Your task to perform on an android device: turn on the 12-hour format for clock Image 0: 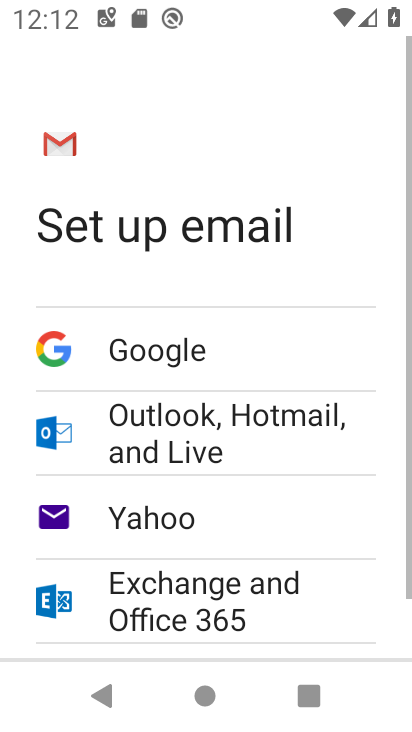
Step 0: press home button
Your task to perform on an android device: turn on the 12-hour format for clock Image 1: 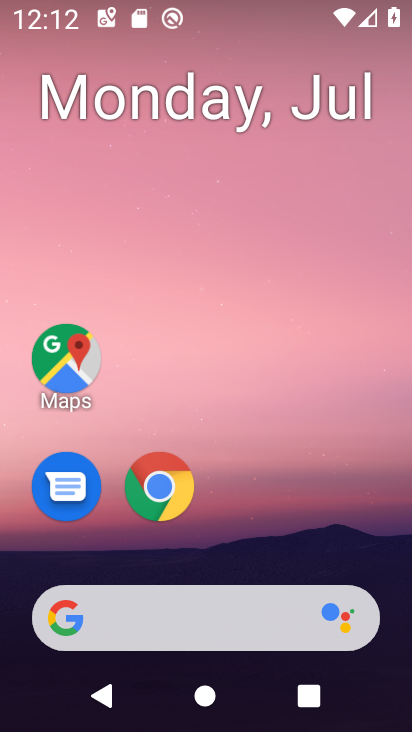
Step 1: drag from (340, 541) to (322, 132)
Your task to perform on an android device: turn on the 12-hour format for clock Image 2: 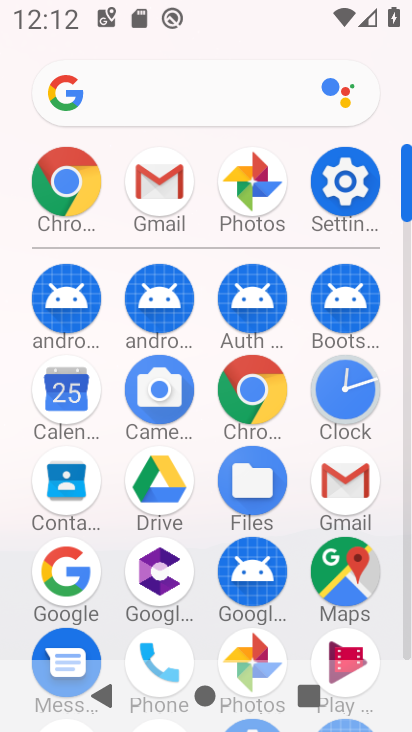
Step 2: click (346, 386)
Your task to perform on an android device: turn on the 12-hour format for clock Image 3: 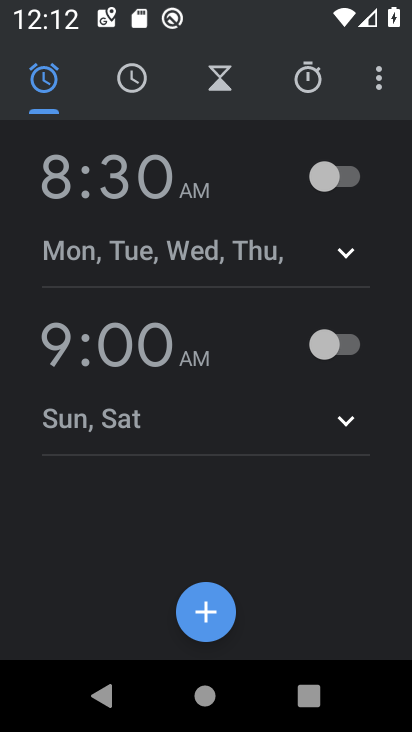
Step 3: click (380, 92)
Your task to perform on an android device: turn on the 12-hour format for clock Image 4: 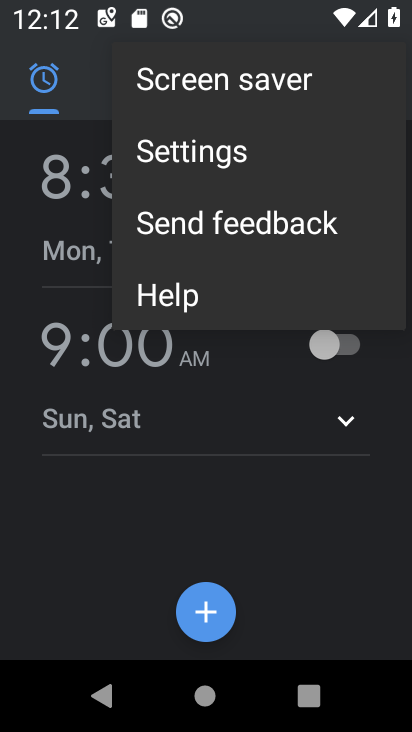
Step 4: click (253, 153)
Your task to perform on an android device: turn on the 12-hour format for clock Image 5: 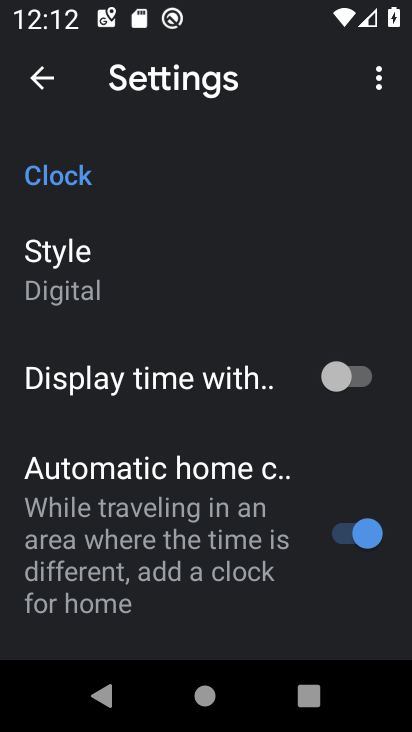
Step 5: drag from (255, 506) to (258, 412)
Your task to perform on an android device: turn on the 12-hour format for clock Image 6: 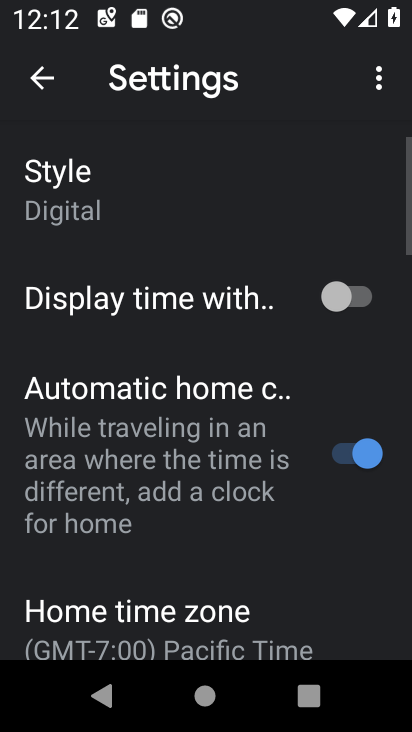
Step 6: drag from (271, 547) to (252, 386)
Your task to perform on an android device: turn on the 12-hour format for clock Image 7: 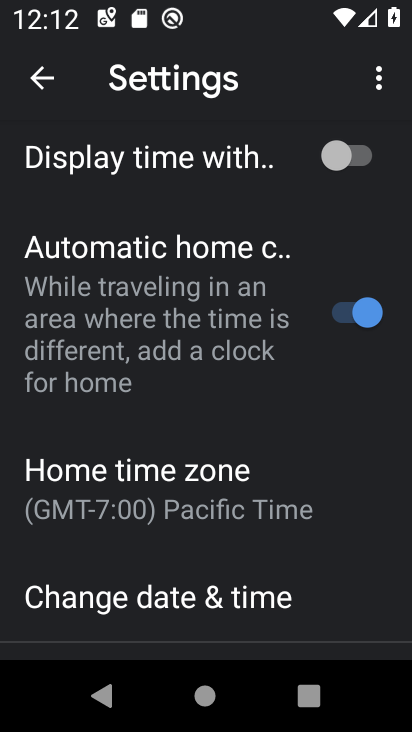
Step 7: drag from (263, 489) to (265, 381)
Your task to perform on an android device: turn on the 12-hour format for clock Image 8: 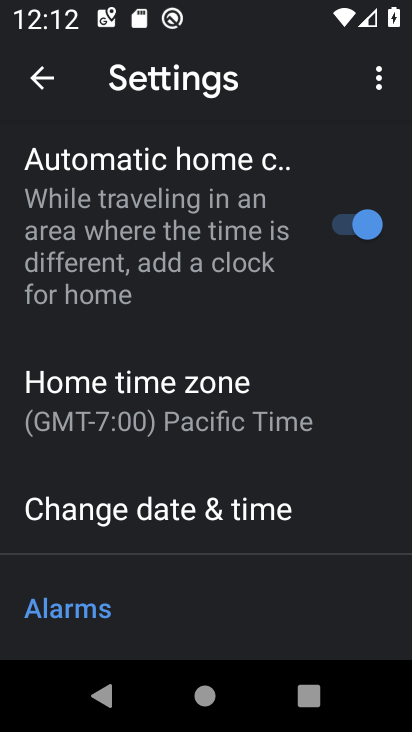
Step 8: drag from (267, 558) to (270, 376)
Your task to perform on an android device: turn on the 12-hour format for clock Image 9: 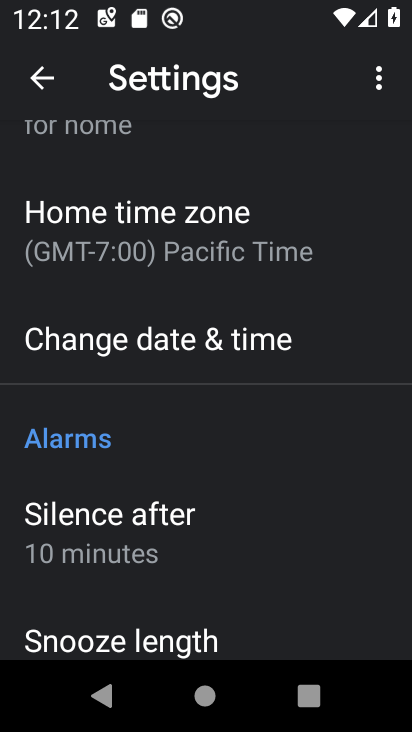
Step 9: drag from (257, 550) to (259, 425)
Your task to perform on an android device: turn on the 12-hour format for clock Image 10: 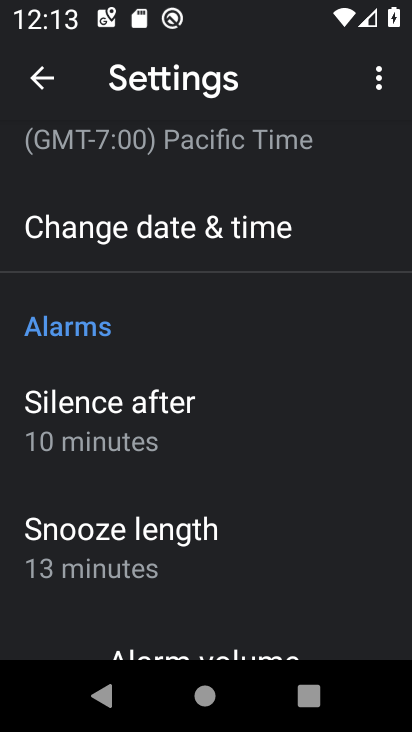
Step 10: drag from (306, 556) to (306, 431)
Your task to perform on an android device: turn on the 12-hour format for clock Image 11: 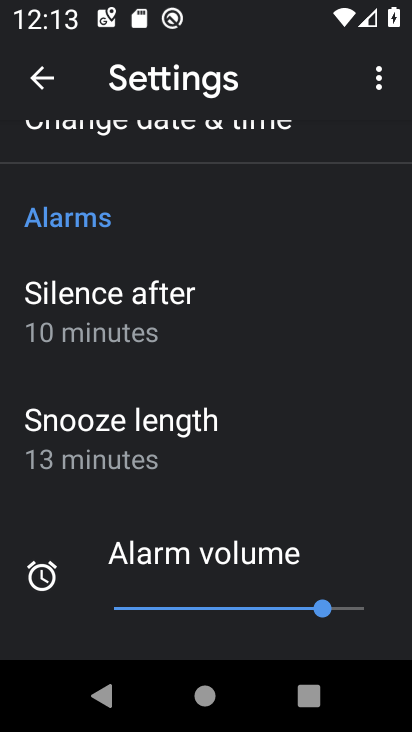
Step 11: drag from (344, 551) to (352, 473)
Your task to perform on an android device: turn on the 12-hour format for clock Image 12: 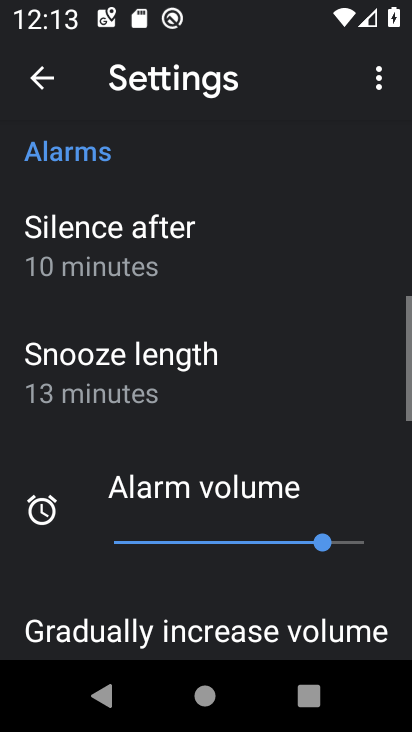
Step 12: drag from (371, 249) to (362, 338)
Your task to perform on an android device: turn on the 12-hour format for clock Image 13: 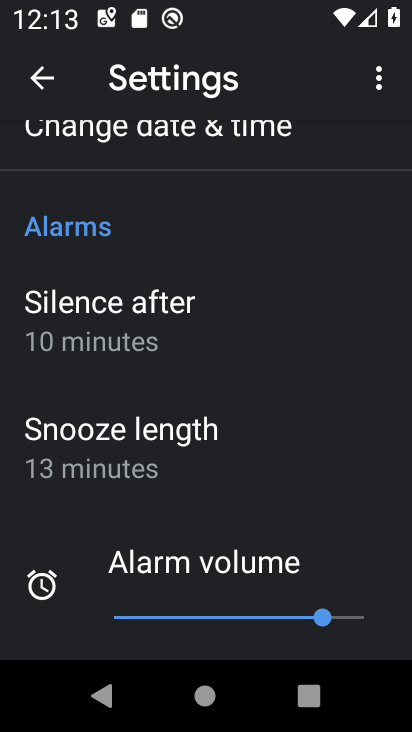
Step 13: drag from (337, 225) to (333, 332)
Your task to perform on an android device: turn on the 12-hour format for clock Image 14: 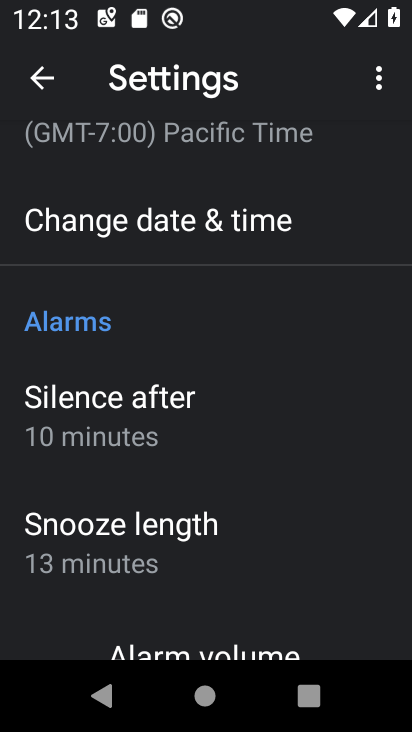
Step 14: drag from (336, 195) to (335, 311)
Your task to perform on an android device: turn on the 12-hour format for clock Image 15: 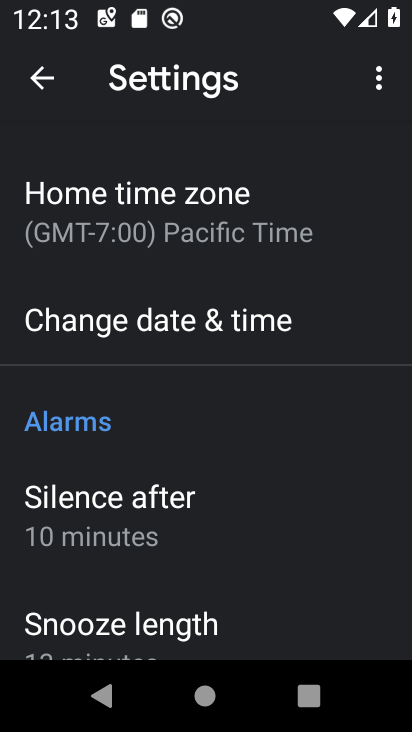
Step 15: click (289, 316)
Your task to perform on an android device: turn on the 12-hour format for clock Image 16: 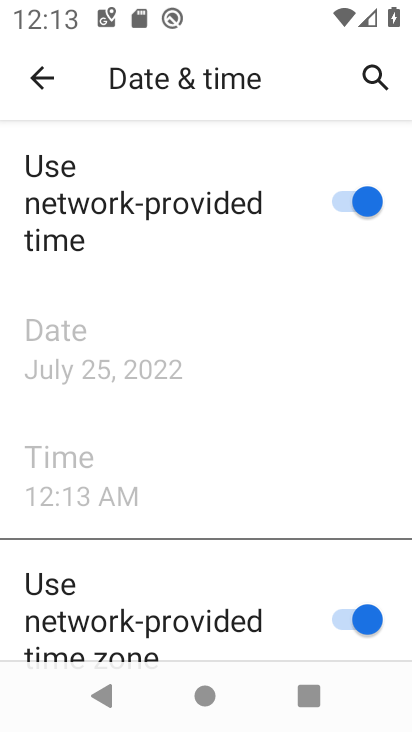
Step 16: task complete